Your task to perform on an android device: check data usage Image 0: 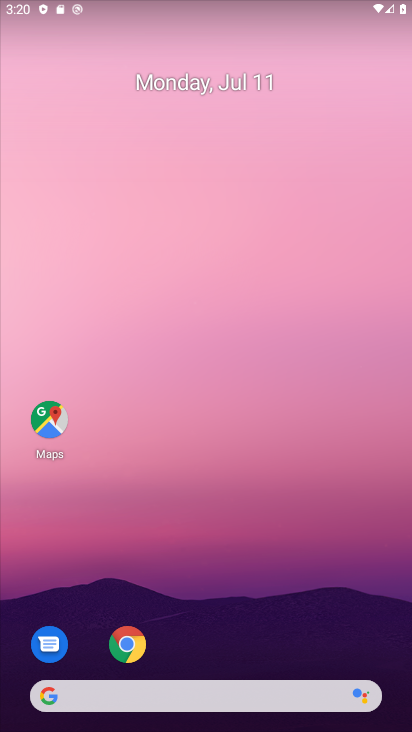
Step 0: drag from (157, 575) to (202, 264)
Your task to perform on an android device: check data usage Image 1: 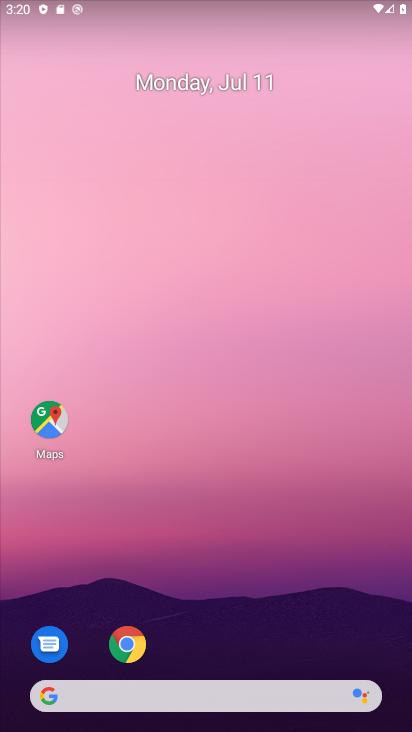
Step 1: drag from (218, 625) to (218, 221)
Your task to perform on an android device: check data usage Image 2: 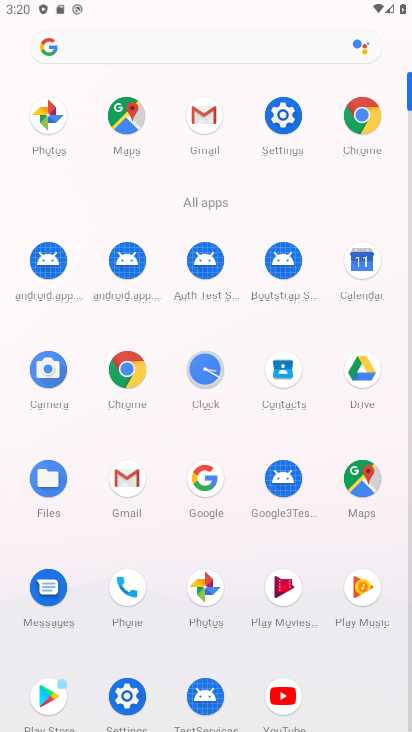
Step 2: click (277, 107)
Your task to perform on an android device: check data usage Image 3: 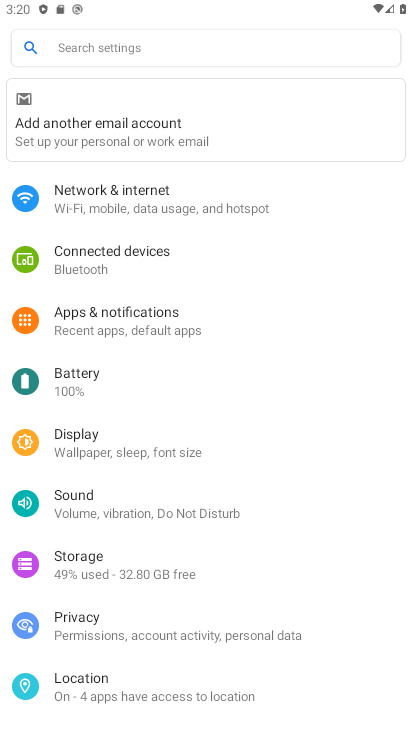
Step 3: click (158, 204)
Your task to perform on an android device: check data usage Image 4: 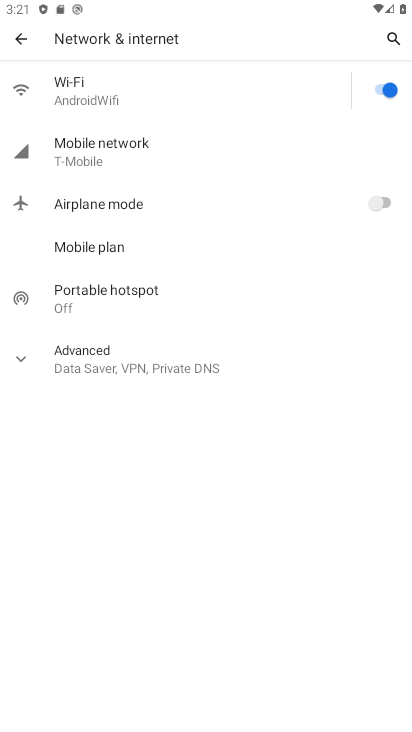
Step 4: click (138, 156)
Your task to perform on an android device: check data usage Image 5: 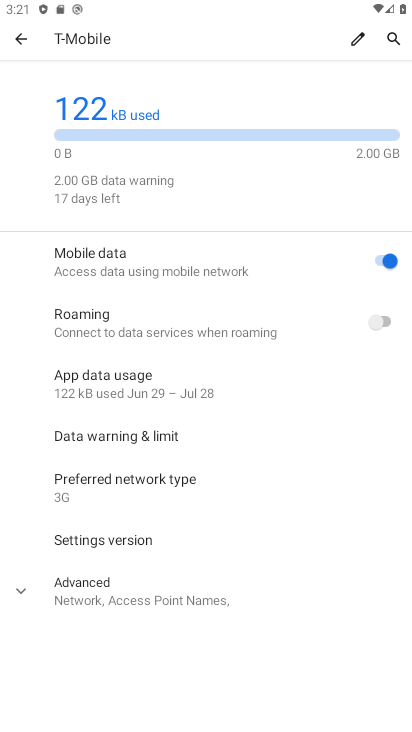
Step 5: task complete